Your task to perform on an android device: toggle airplane mode Image 0: 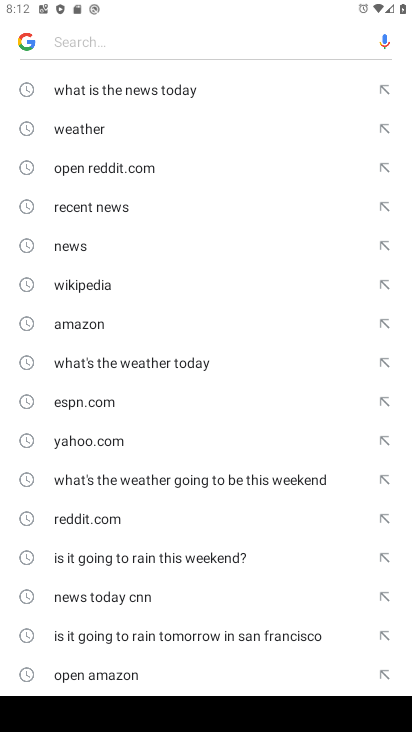
Step 0: press home button
Your task to perform on an android device: toggle airplane mode Image 1: 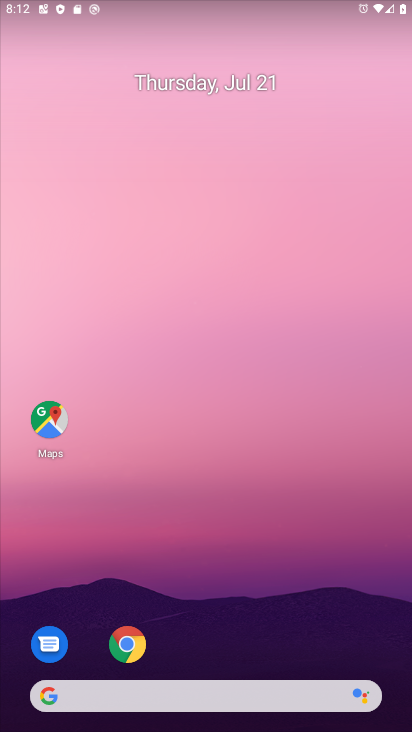
Step 1: drag from (192, 627) to (234, 199)
Your task to perform on an android device: toggle airplane mode Image 2: 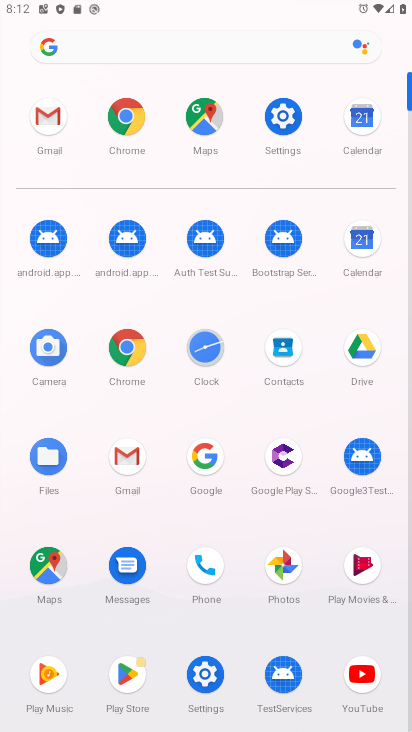
Step 2: click (290, 107)
Your task to perform on an android device: toggle airplane mode Image 3: 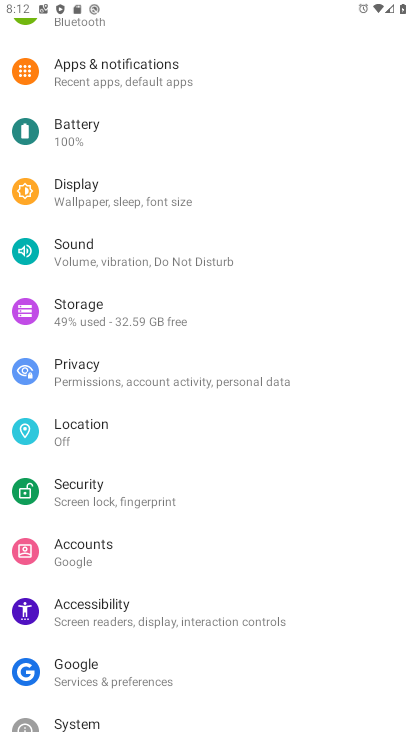
Step 3: drag from (128, 92) to (150, 426)
Your task to perform on an android device: toggle airplane mode Image 4: 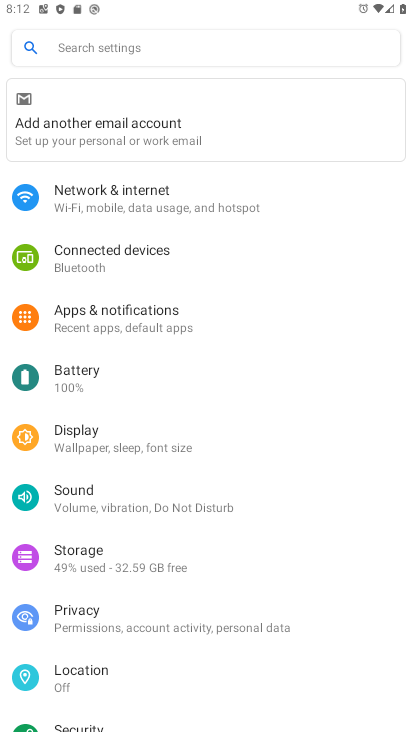
Step 4: click (125, 205)
Your task to perform on an android device: toggle airplane mode Image 5: 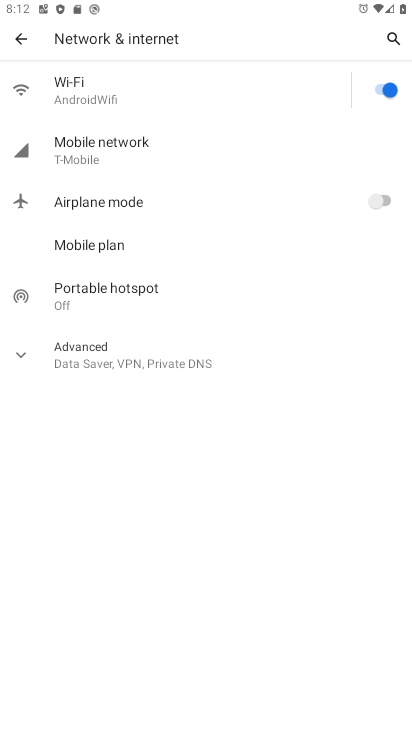
Step 5: click (385, 191)
Your task to perform on an android device: toggle airplane mode Image 6: 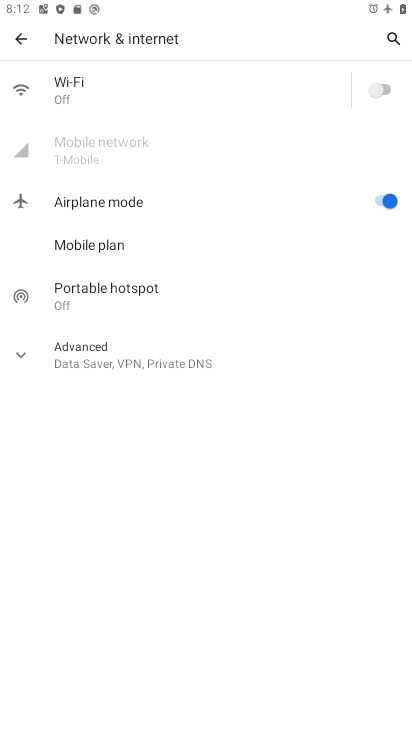
Step 6: task complete